Your task to perform on an android device: Open Google Maps and go to "Timeline" Image 0: 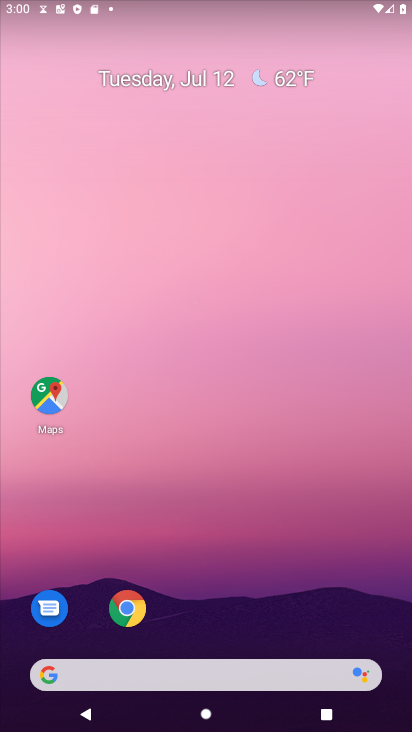
Step 0: click (52, 395)
Your task to perform on an android device: Open Google Maps and go to "Timeline" Image 1: 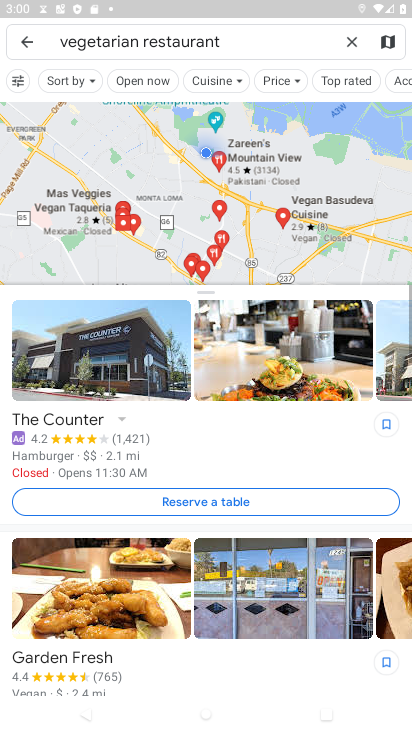
Step 1: click (29, 38)
Your task to perform on an android device: Open Google Maps and go to "Timeline" Image 2: 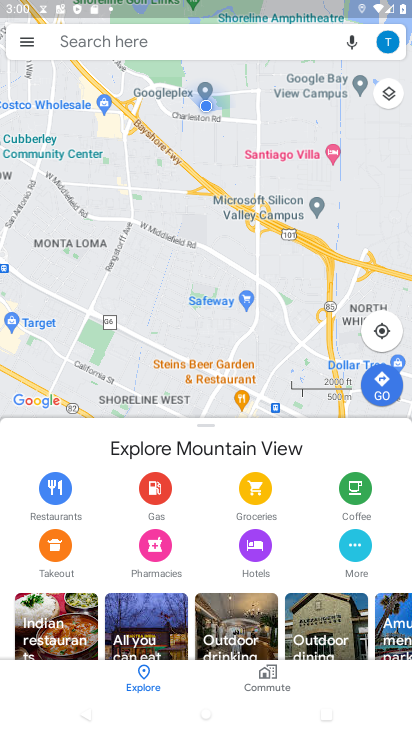
Step 2: click (31, 37)
Your task to perform on an android device: Open Google Maps and go to "Timeline" Image 3: 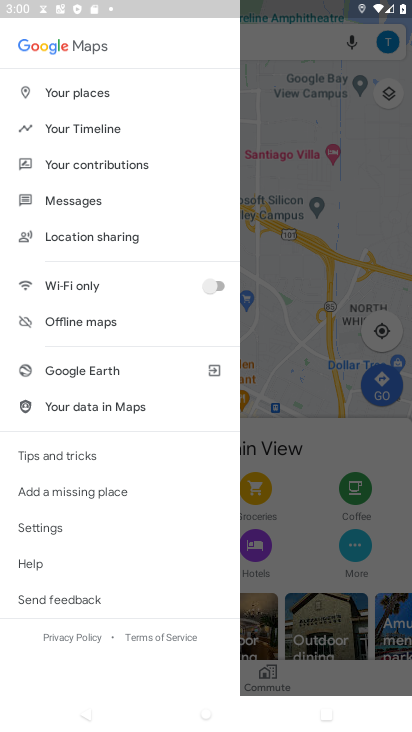
Step 3: click (113, 131)
Your task to perform on an android device: Open Google Maps and go to "Timeline" Image 4: 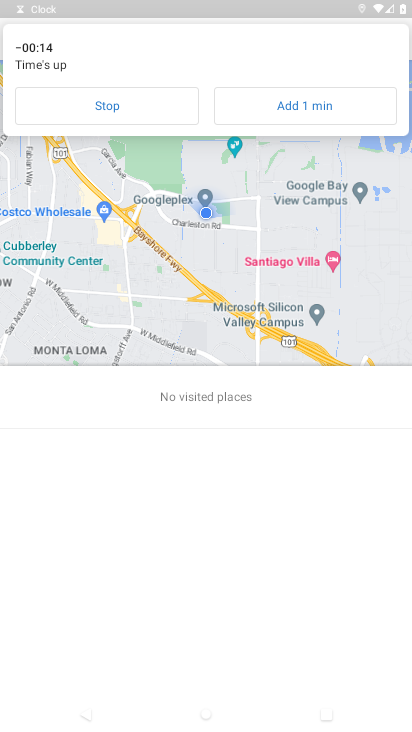
Step 4: task complete